Your task to perform on an android device: toggle javascript in the chrome app Image 0: 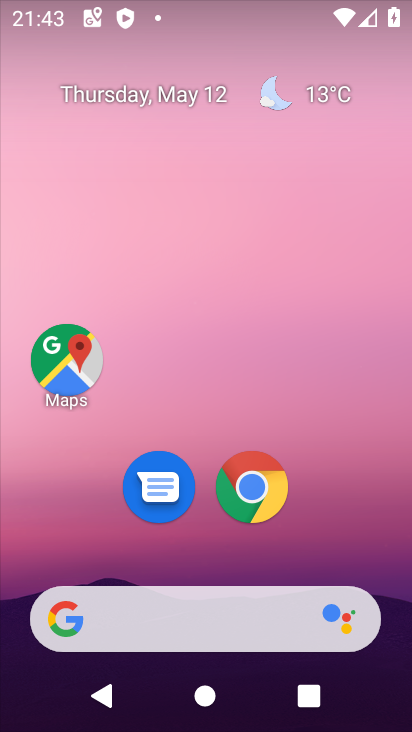
Step 0: click (263, 491)
Your task to perform on an android device: toggle javascript in the chrome app Image 1: 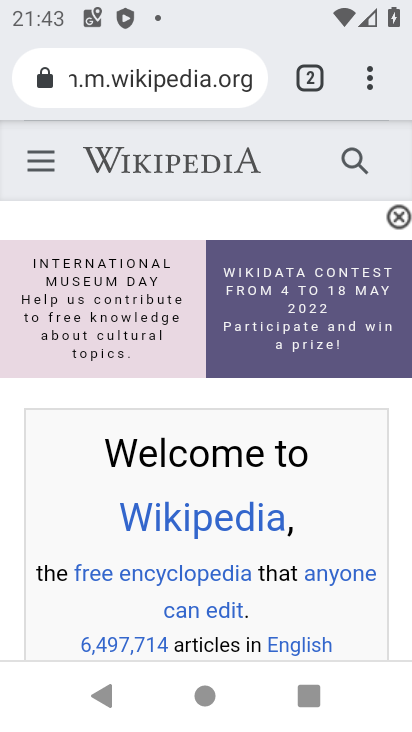
Step 1: click (379, 85)
Your task to perform on an android device: toggle javascript in the chrome app Image 2: 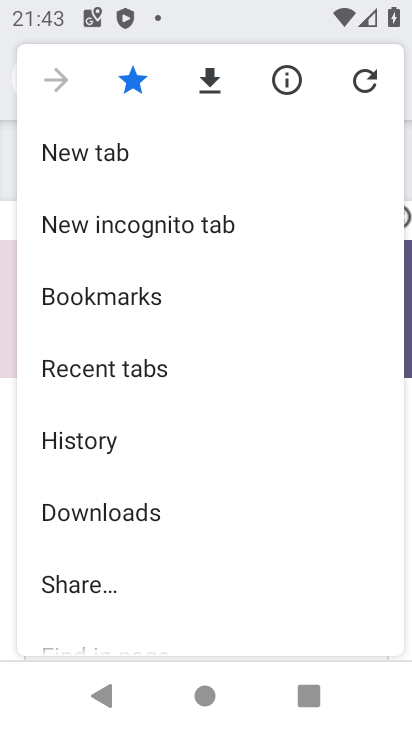
Step 2: drag from (119, 607) to (175, 221)
Your task to perform on an android device: toggle javascript in the chrome app Image 3: 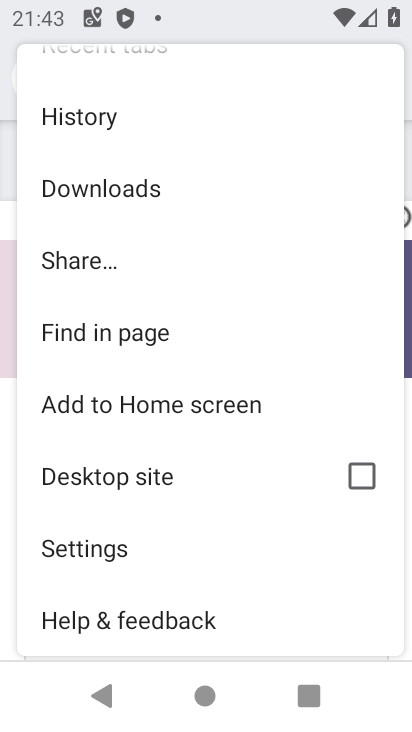
Step 3: click (119, 528)
Your task to perform on an android device: toggle javascript in the chrome app Image 4: 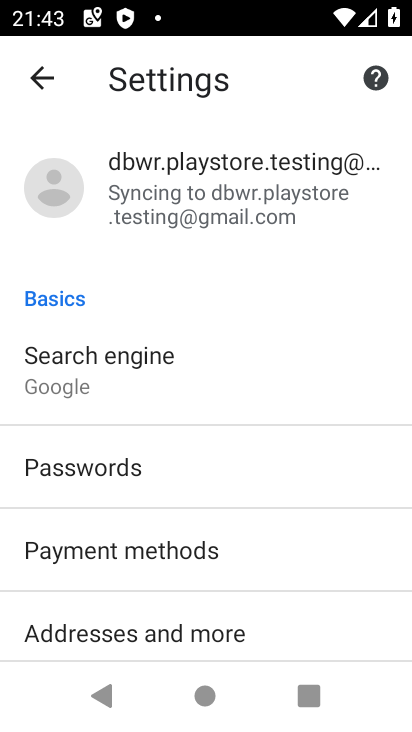
Step 4: drag from (97, 568) to (134, 339)
Your task to perform on an android device: toggle javascript in the chrome app Image 5: 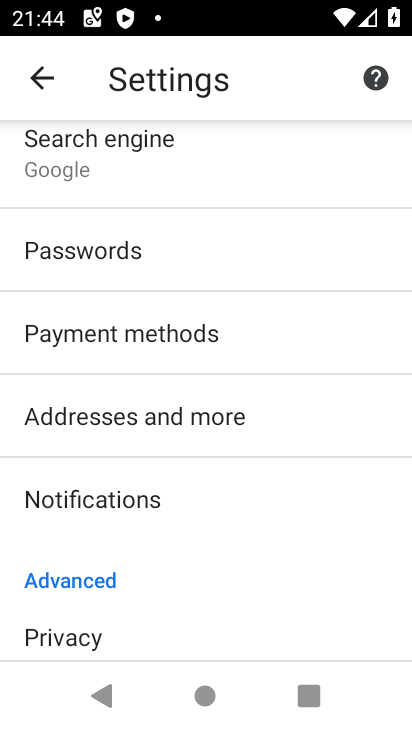
Step 5: drag from (173, 630) to (213, 433)
Your task to perform on an android device: toggle javascript in the chrome app Image 6: 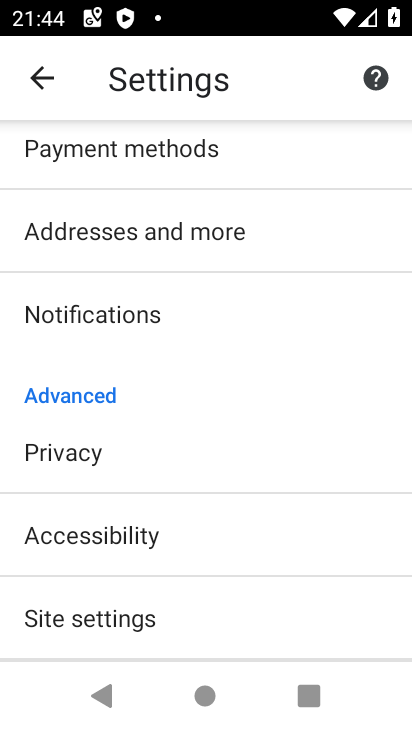
Step 6: click (91, 611)
Your task to perform on an android device: toggle javascript in the chrome app Image 7: 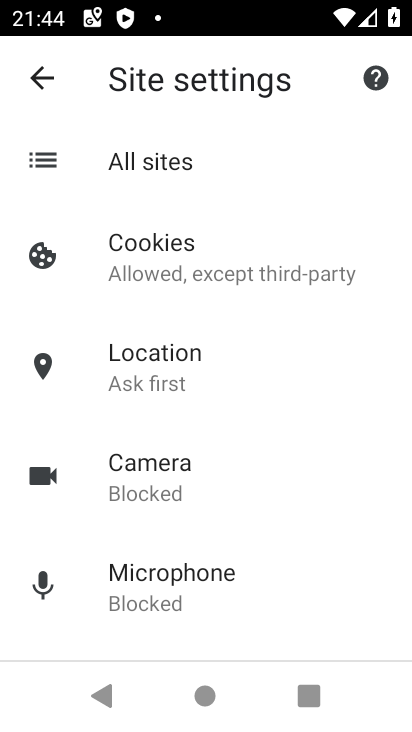
Step 7: drag from (91, 611) to (146, 295)
Your task to perform on an android device: toggle javascript in the chrome app Image 8: 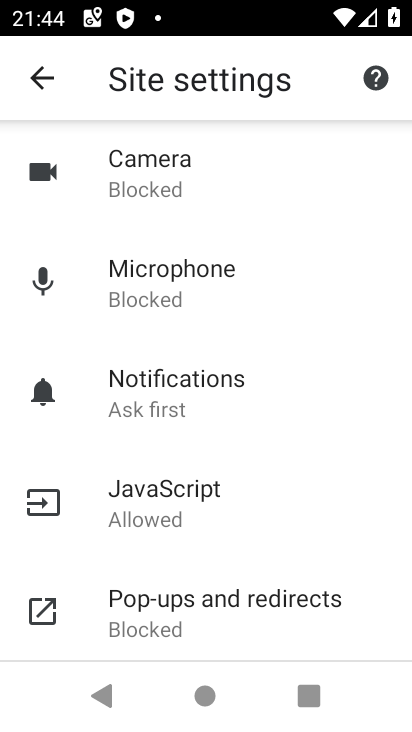
Step 8: click (183, 499)
Your task to perform on an android device: toggle javascript in the chrome app Image 9: 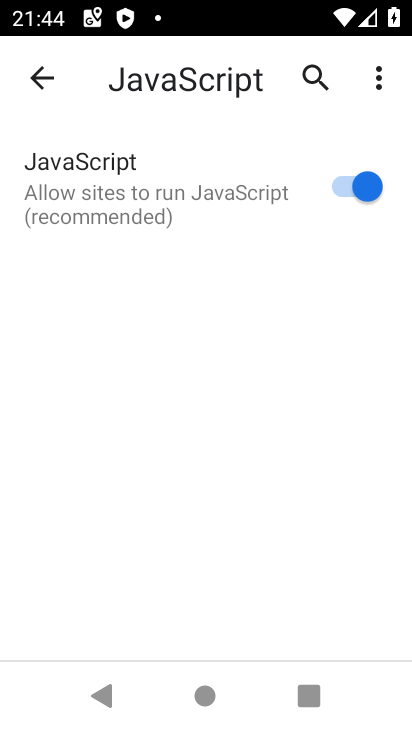
Step 9: task complete